Your task to perform on an android device: Open Android settings Image 0: 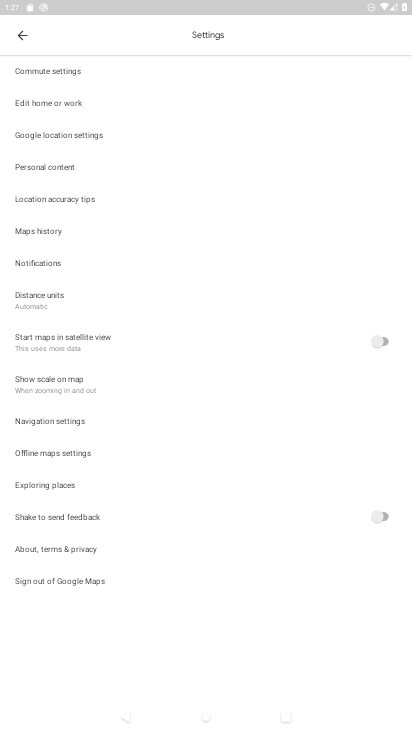
Step 0: press home button
Your task to perform on an android device: Open Android settings Image 1: 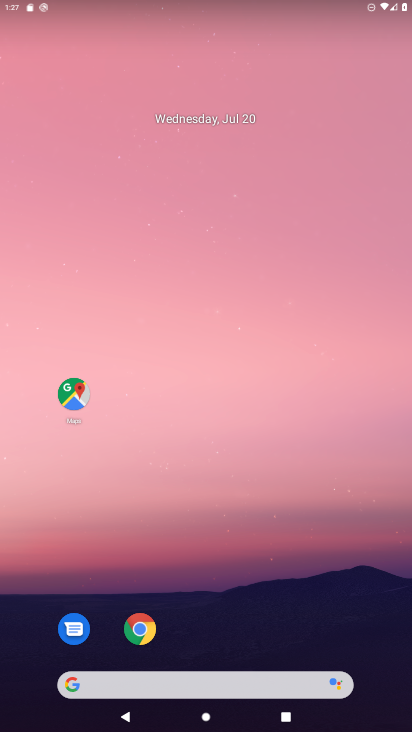
Step 1: drag from (181, 557) to (150, 207)
Your task to perform on an android device: Open Android settings Image 2: 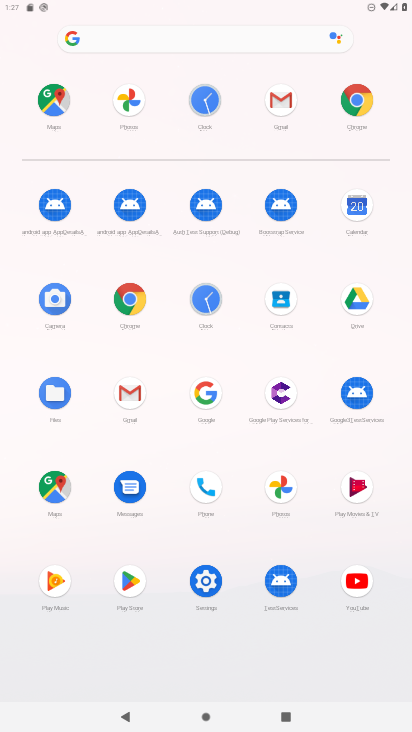
Step 2: click (207, 580)
Your task to perform on an android device: Open Android settings Image 3: 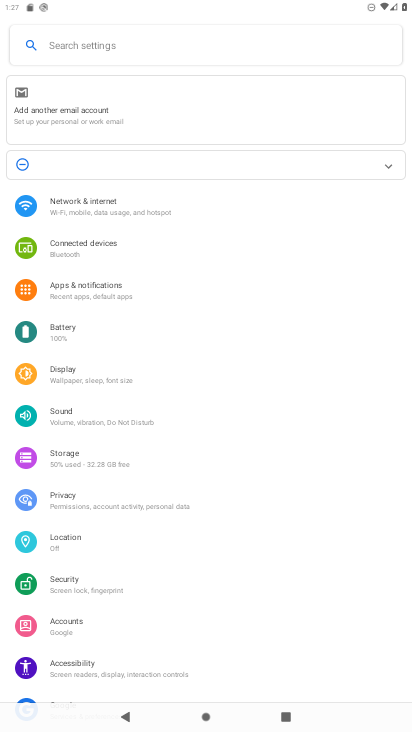
Step 3: drag from (107, 662) to (205, 319)
Your task to perform on an android device: Open Android settings Image 4: 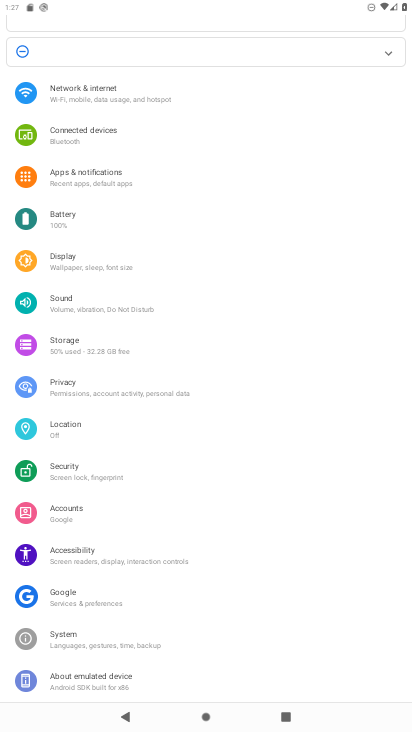
Step 4: click (82, 677)
Your task to perform on an android device: Open Android settings Image 5: 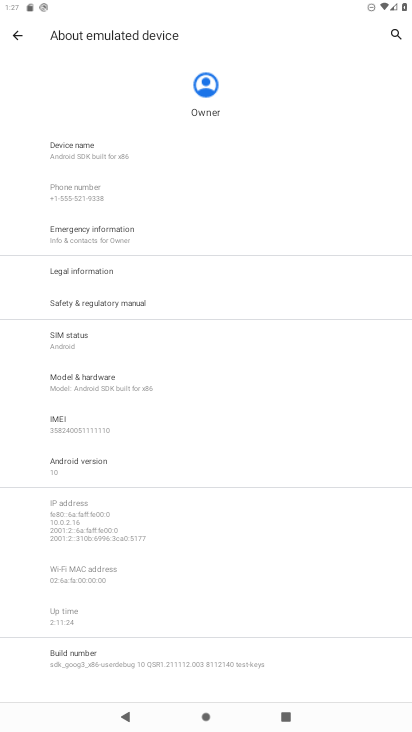
Step 5: task complete